Your task to perform on an android device: create a new album in the google photos Image 0: 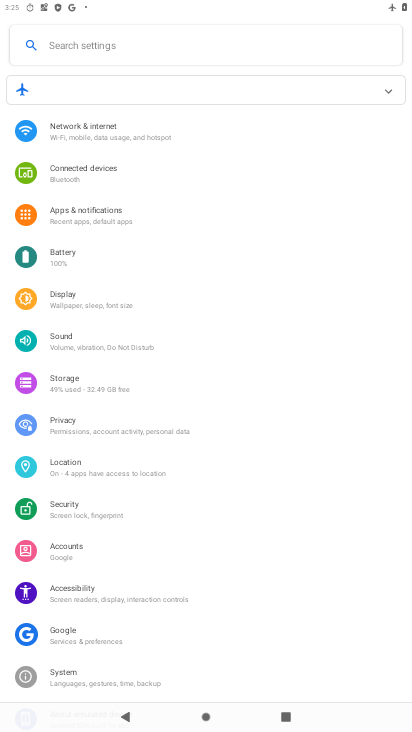
Step 0: press home button
Your task to perform on an android device: create a new album in the google photos Image 1: 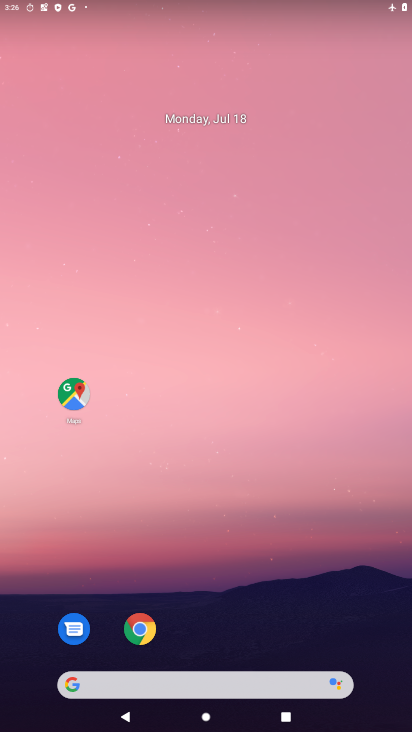
Step 1: drag from (198, 647) to (143, 106)
Your task to perform on an android device: create a new album in the google photos Image 2: 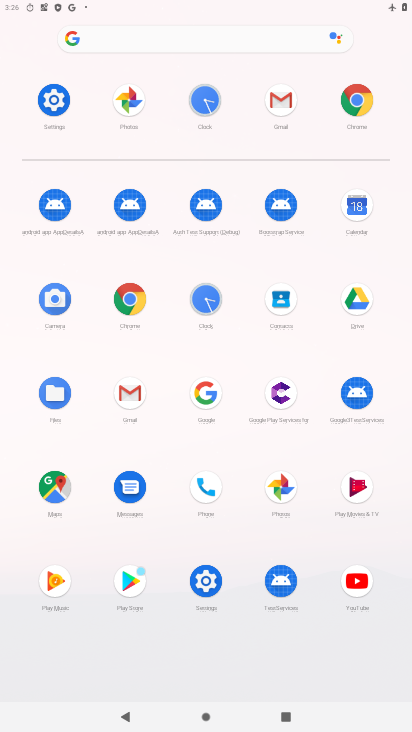
Step 2: click (276, 487)
Your task to perform on an android device: create a new album in the google photos Image 3: 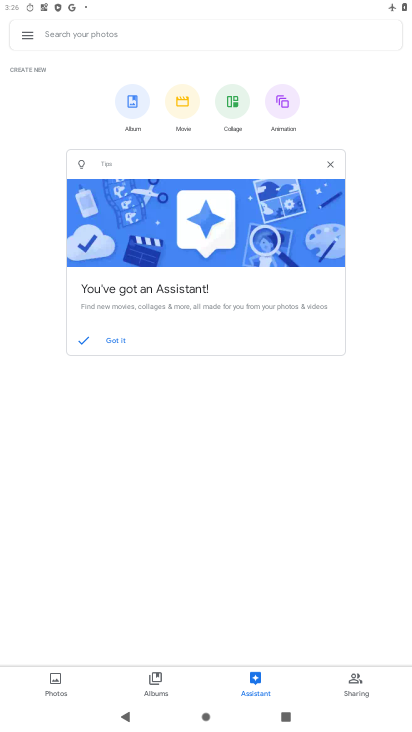
Step 3: click (159, 683)
Your task to perform on an android device: create a new album in the google photos Image 4: 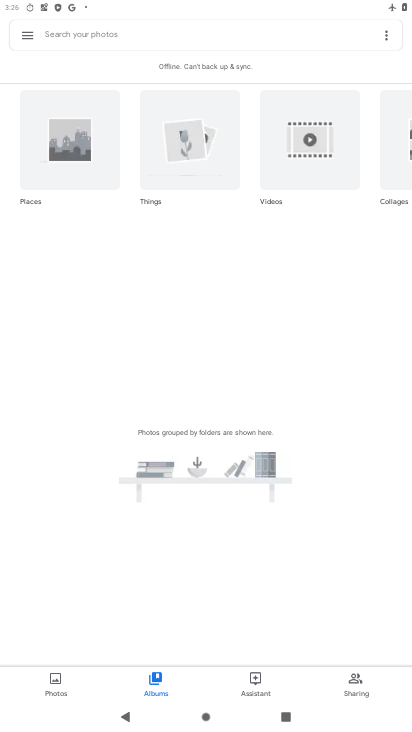
Step 4: task complete